Your task to perform on an android device: refresh tabs in the chrome app Image 0: 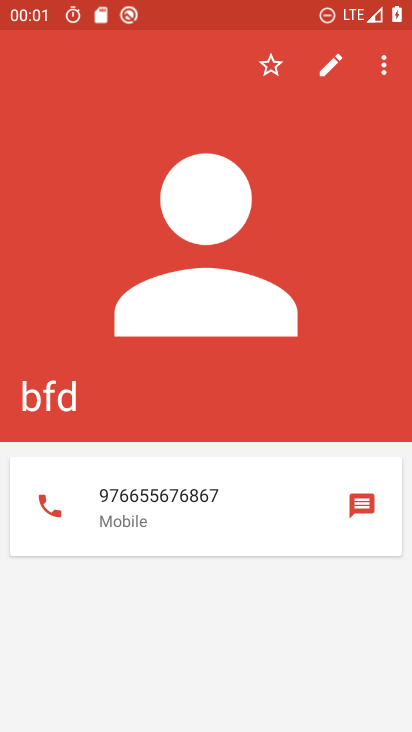
Step 0: press home button
Your task to perform on an android device: refresh tabs in the chrome app Image 1: 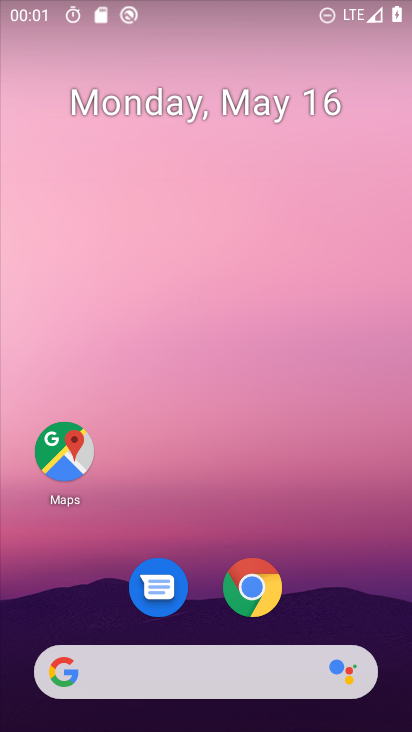
Step 1: click (226, 582)
Your task to perform on an android device: refresh tabs in the chrome app Image 2: 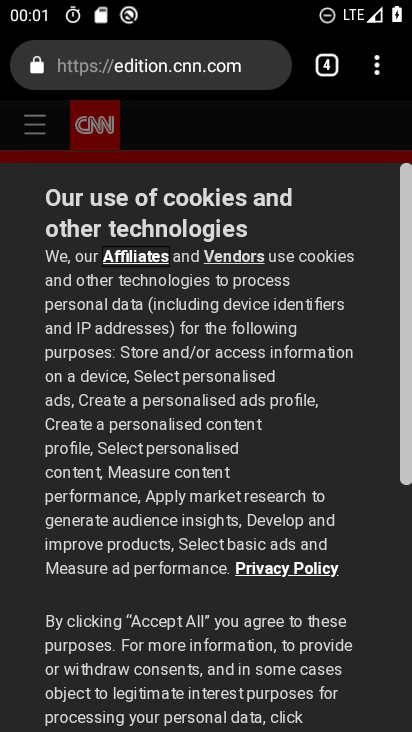
Step 2: click (370, 80)
Your task to perform on an android device: refresh tabs in the chrome app Image 3: 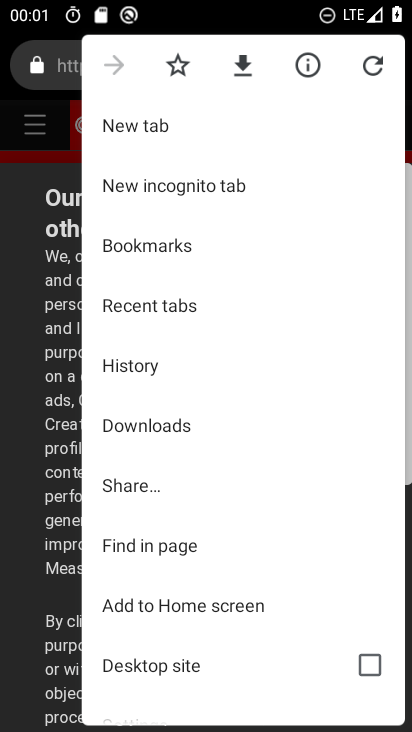
Step 3: click (363, 66)
Your task to perform on an android device: refresh tabs in the chrome app Image 4: 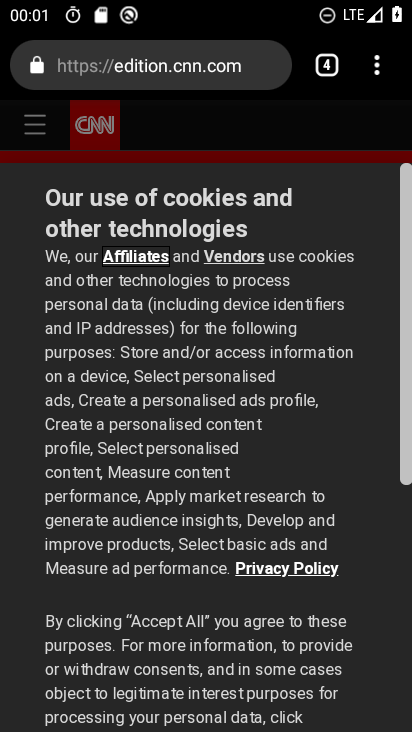
Step 4: task complete